Your task to perform on an android device: Is it going to rain tomorrow? Image 0: 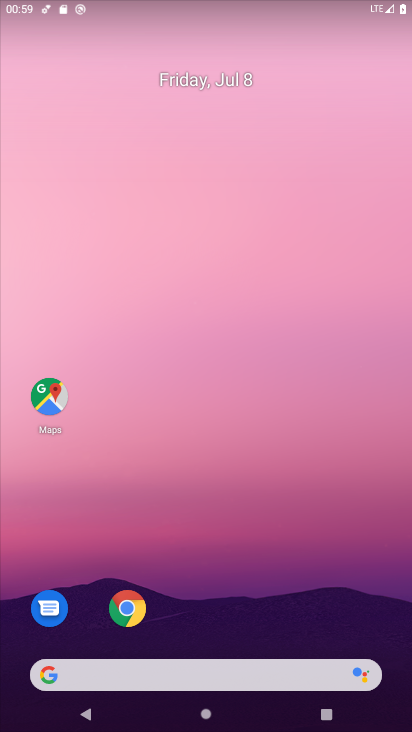
Step 0: drag from (230, 509) to (249, 151)
Your task to perform on an android device: Is it going to rain tomorrow? Image 1: 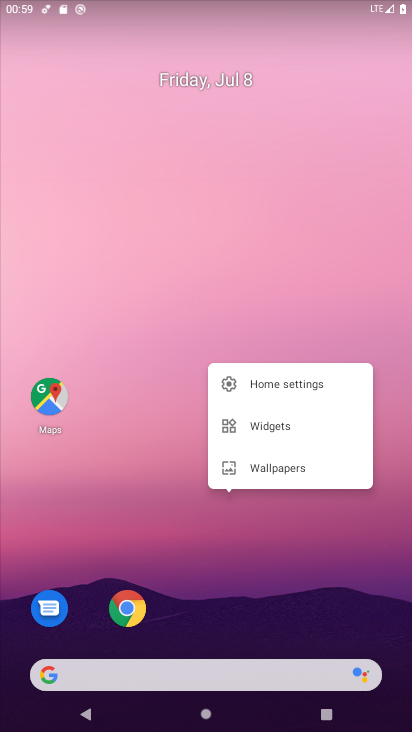
Step 1: click (195, 549)
Your task to perform on an android device: Is it going to rain tomorrow? Image 2: 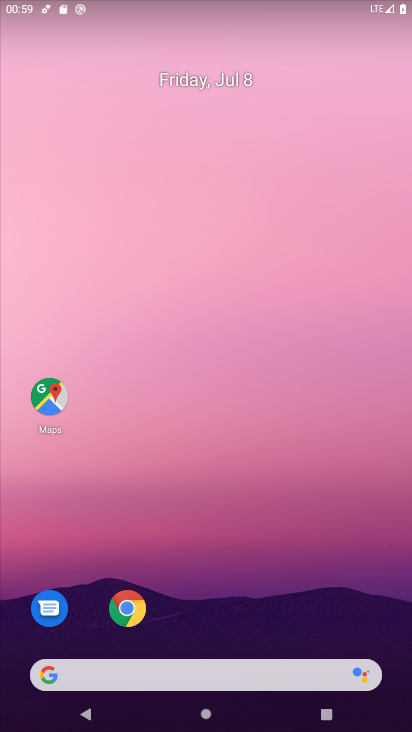
Step 2: drag from (216, 622) to (207, 222)
Your task to perform on an android device: Is it going to rain tomorrow? Image 3: 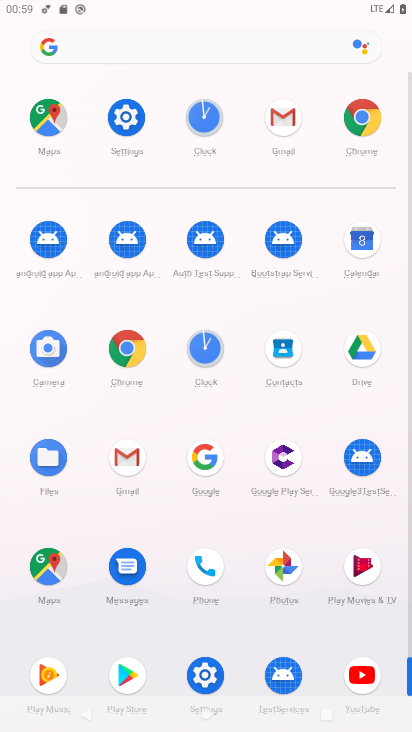
Step 3: click (361, 100)
Your task to perform on an android device: Is it going to rain tomorrow? Image 4: 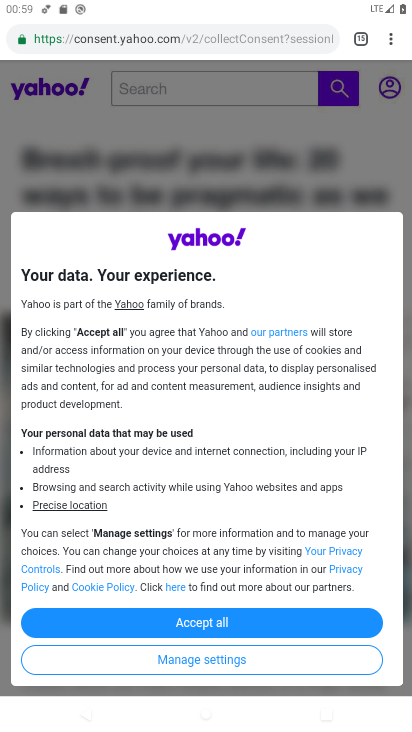
Step 4: click (398, 43)
Your task to perform on an android device: Is it going to rain tomorrow? Image 5: 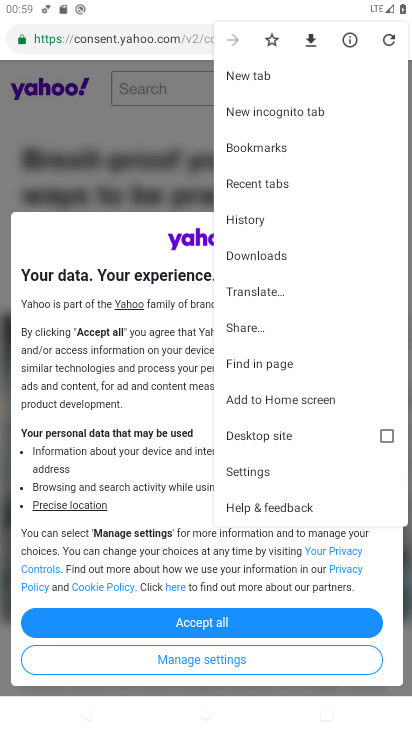
Step 5: click (272, 73)
Your task to perform on an android device: Is it going to rain tomorrow? Image 6: 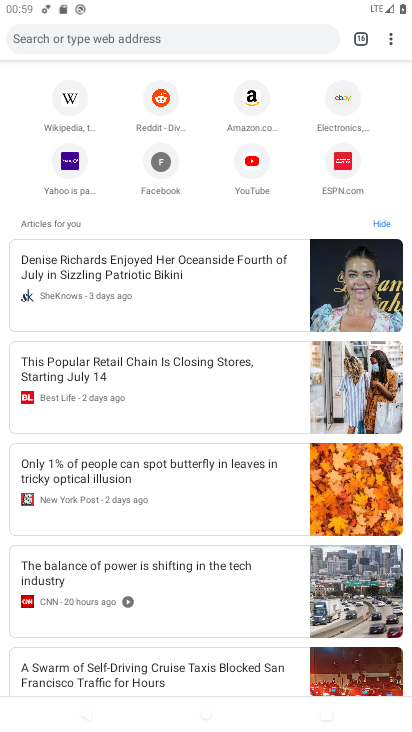
Step 6: click (206, 25)
Your task to perform on an android device: Is it going to rain tomorrow? Image 7: 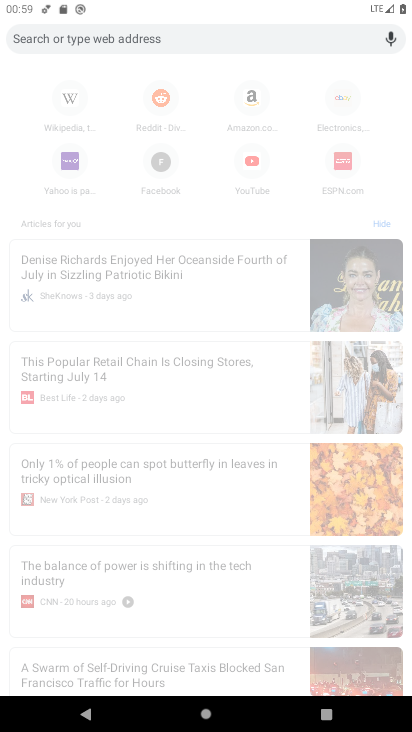
Step 7: type "Is it going to rain tomorrow "
Your task to perform on an android device: Is it going to rain tomorrow? Image 8: 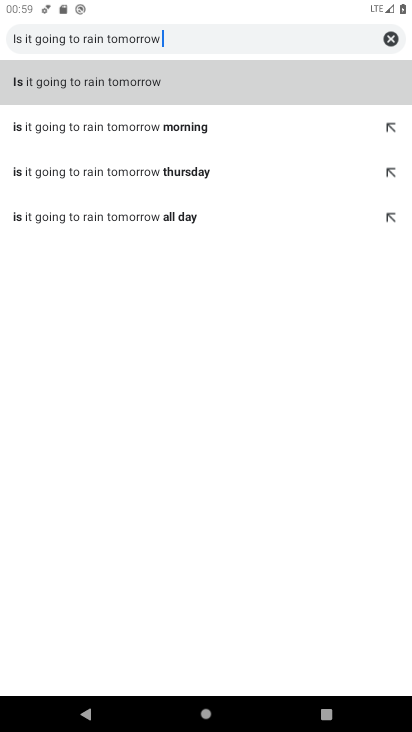
Step 8: click (233, 79)
Your task to perform on an android device: Is it going to rain tomorrow? Image 9: 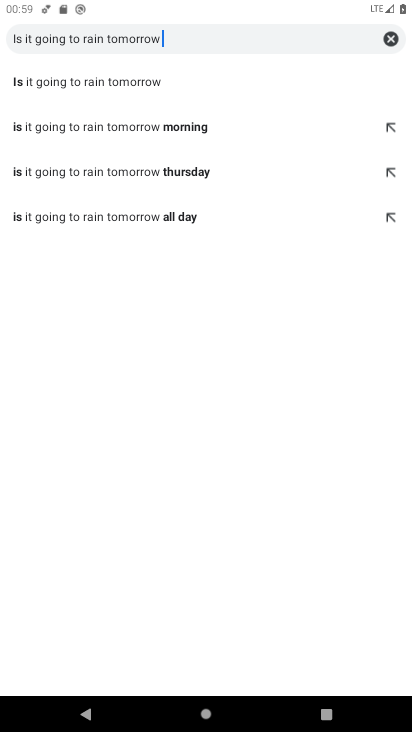
Step 9: click (242, 75)
Your task to perform on an android device: Is it going to rain tomorrow? Image 10: 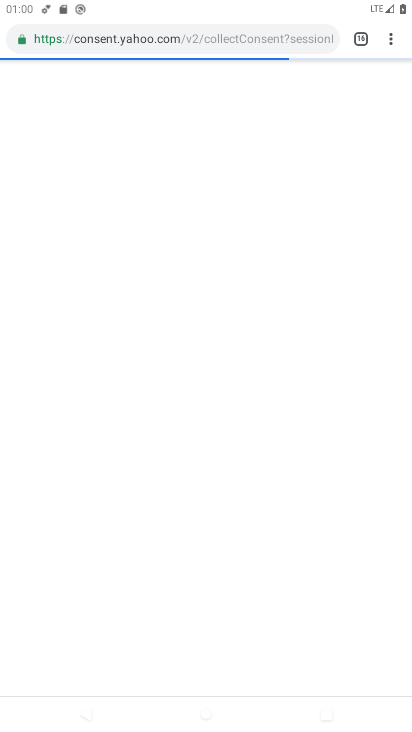
Step 10: click (167, 82)
Your task to perform on an android device: Is it going to rain tomorrow? Image 11: 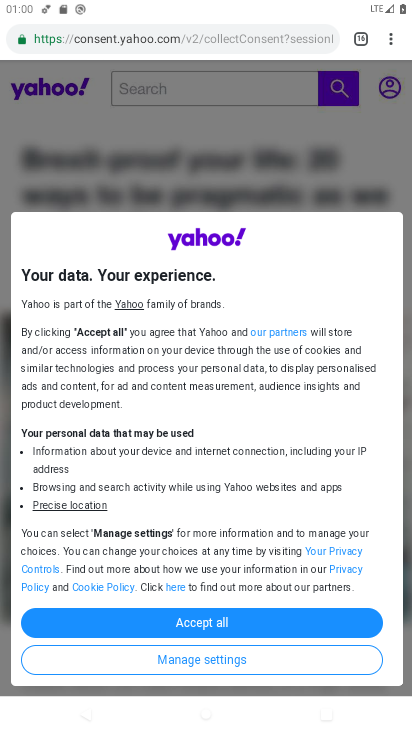
Step 11: task complete